Your task to perform on an android device: clear history in the chrome app Image 0: 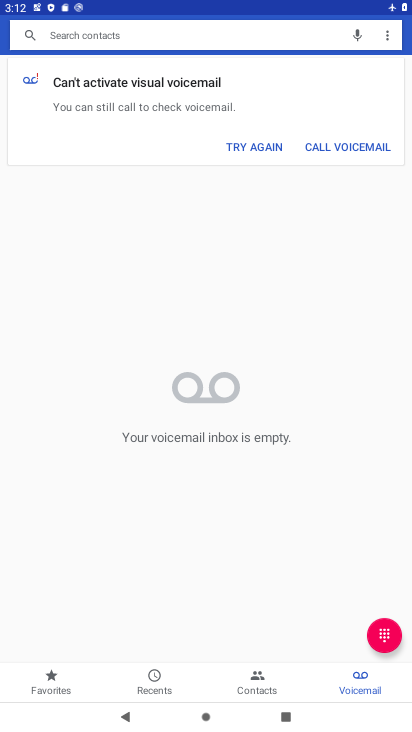
Step 0: press home button
Your task to perform on an android device: clear history in the chrome app Image 1: 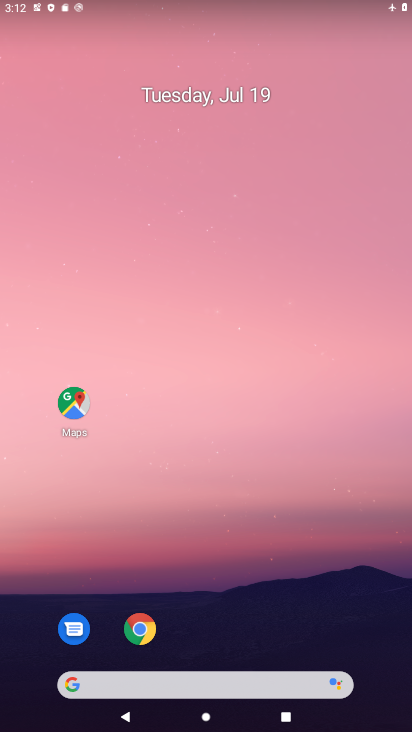
Step 1: click (147, 624)
Your task to perform on an android device: clear history in the chrome app Image 2: 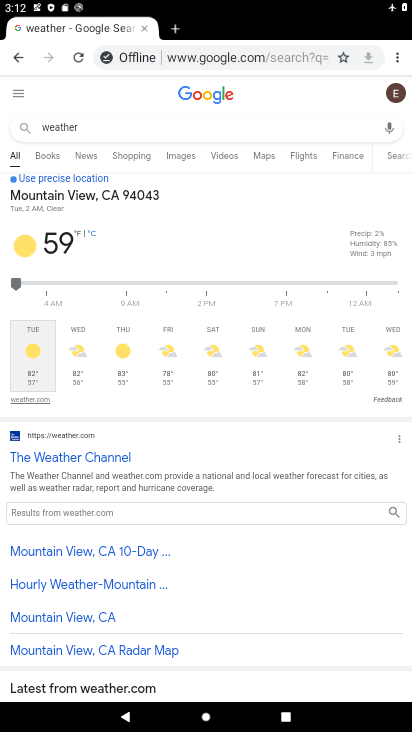
Step 2: drag from (401, 54) to (292, 226)
Your task to perform on an android device: clear history in the chrome app Image 3: 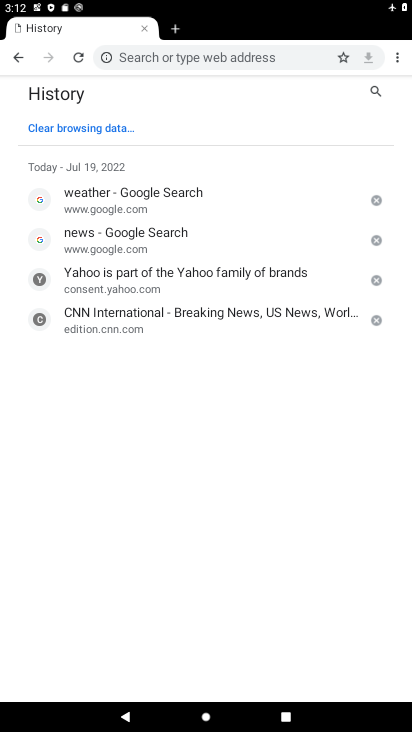
Step 3: click (82, 133)
Your task to perform on an android device: clear history in the chrome app Image 4: 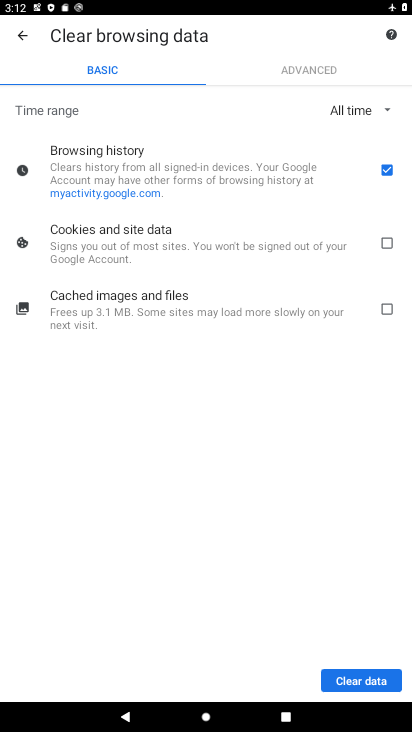
Step 4: click (363, 673)
Your task to perform on an android device: clear history in the chrome app Image 5: 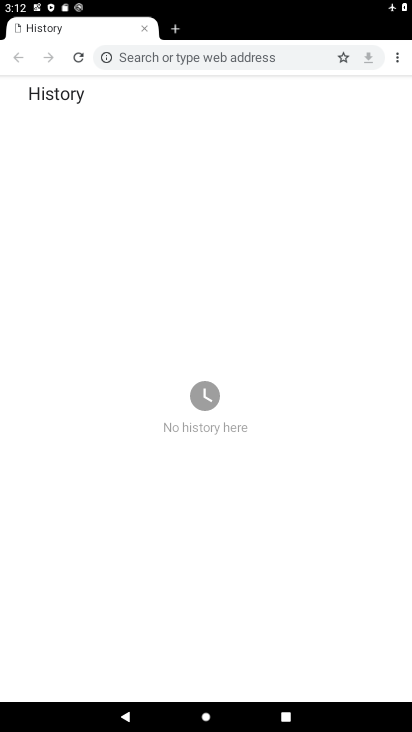
Step 5: task complete